Your task to perform on an android device: What's the weather going to be this weekend? Image 0: 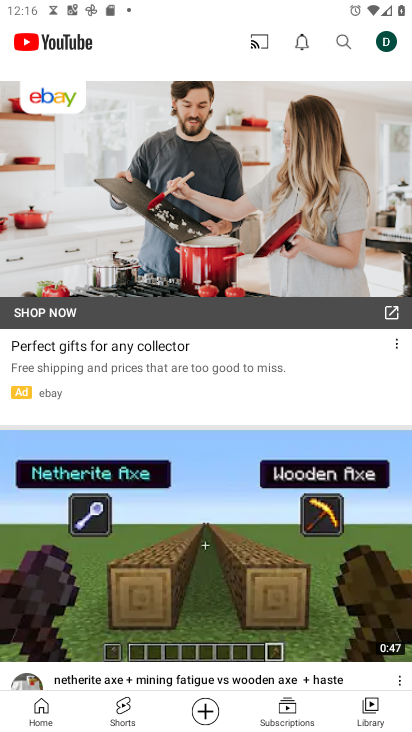
Step 0: press home button
Your task to perform on an android device: What's the weather going to be this weekend? Image 1: 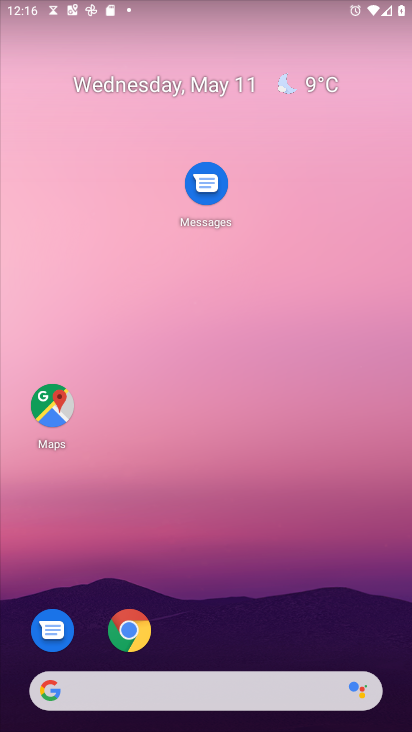
Step 1: click (273, 82)
Your task to perform on an android device: What's the weather going to be this weekend? Image 2: 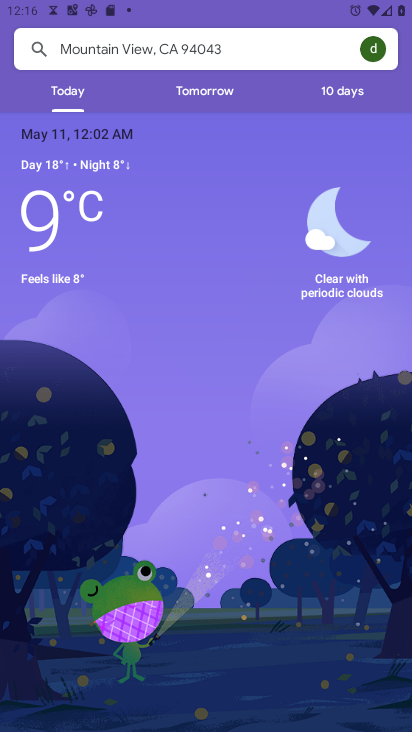
Step 2: click (333, 90)
Your task to perform on an android device: What's the weather going to be this weekend? Image 3: 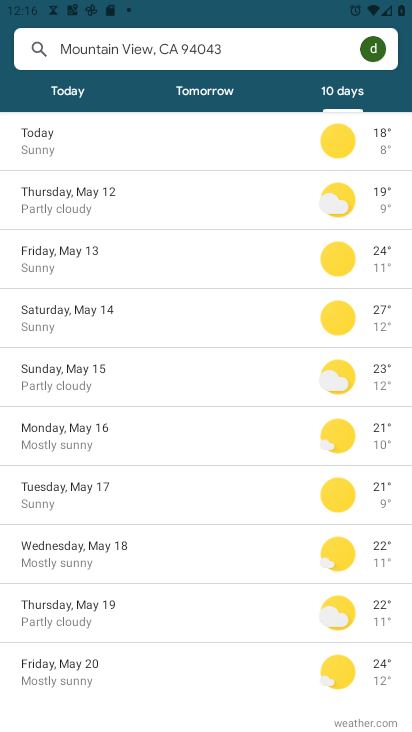
Step 3: click (98, 53)
Your task to perform on an android device: What's the weather going to be this weekend? Image 4: 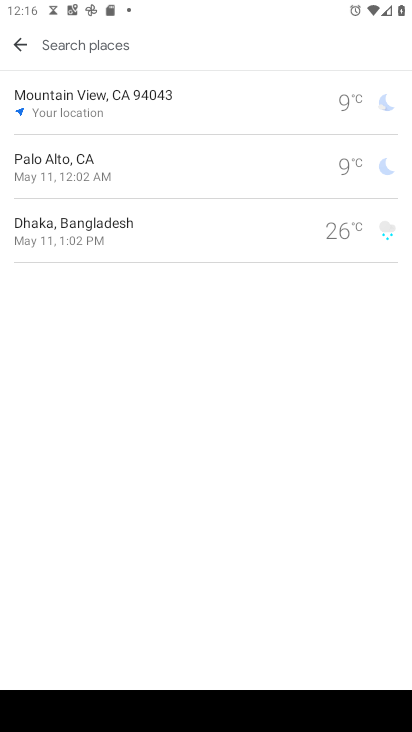
Step 4: press home button
Your task to perform on an android device: What's the weather going to be this weekend? Image 5: 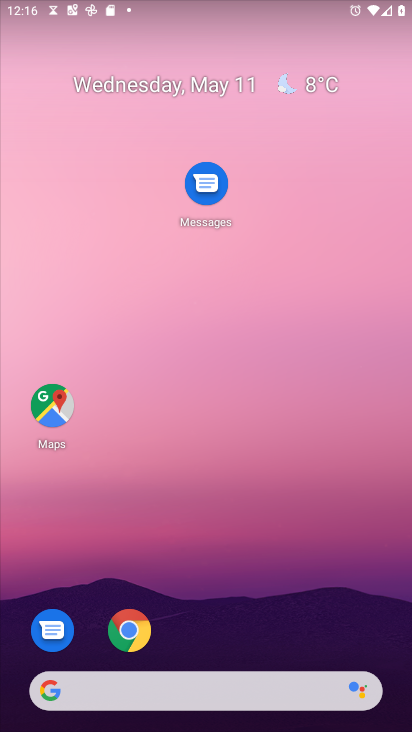
Step 5: click (79, 685)
Your task to perform on an android device: What's the weather going to be this weekend? Image 6: 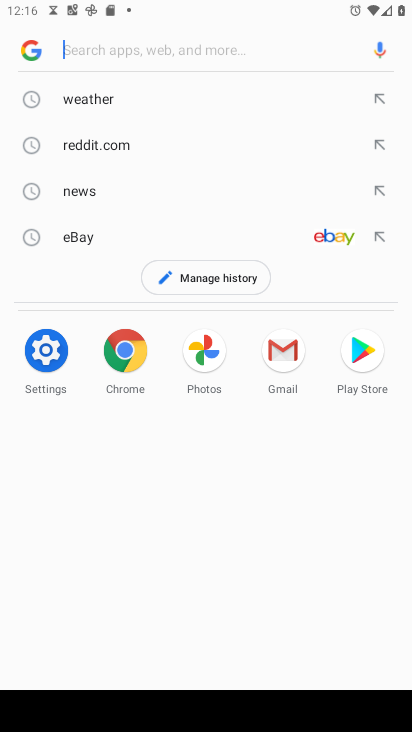
Step 6: click (101, 106)
Your task to perform on an android device: What's the weather going to be this weekend? Image 7: 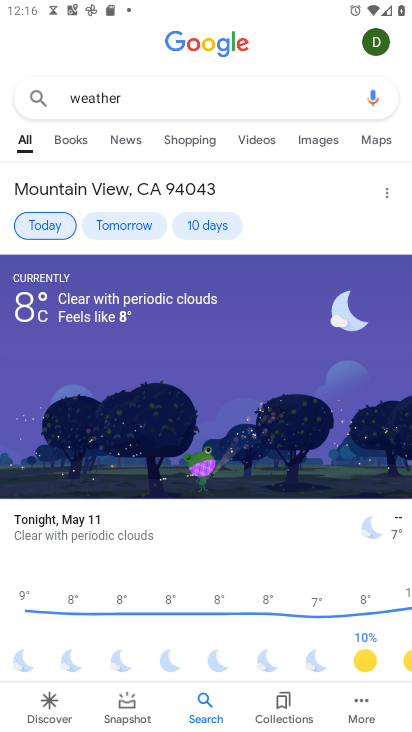
Step 7: drag from (139, 462) to (194, 270)
Your task to perform on an android device: What's the weather going to be this weekend? Image 8: 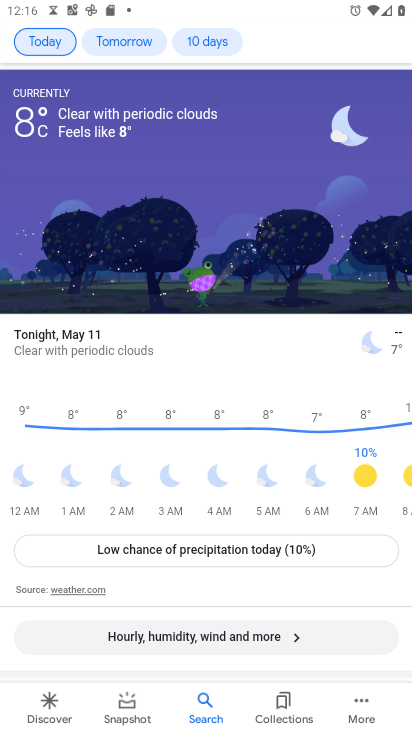
Step 8: drag from (197, 201) to (196, 510)
Your task to perform on an android device: What's the weather going to be this weekend? Image 9: 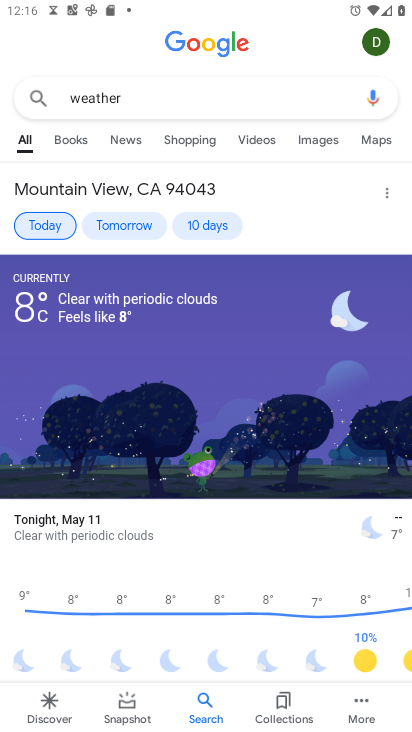
Step 9: click (202, 221)
Your task to perform on an android device: What's the weather going to be this weekend? Image 10: 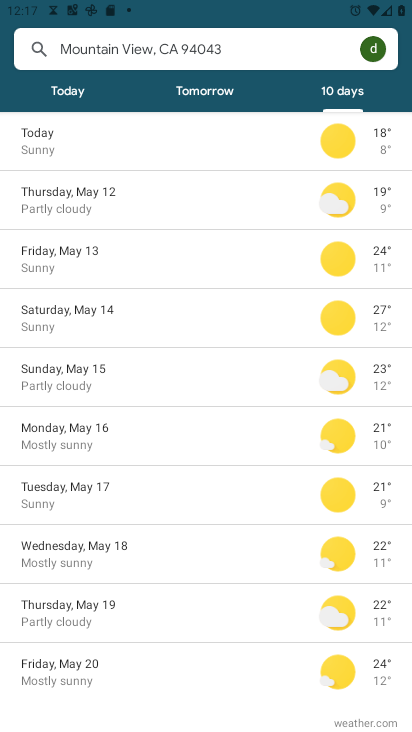
Step 10: task complete